Your task to perform on an android device: Go to internet settings Image 0: 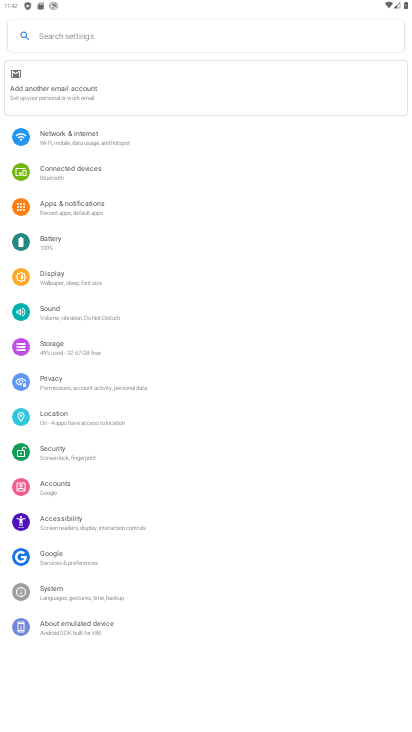
Step 0: press home button
Your task to perform on an android device: Go to internet settings Image 1: 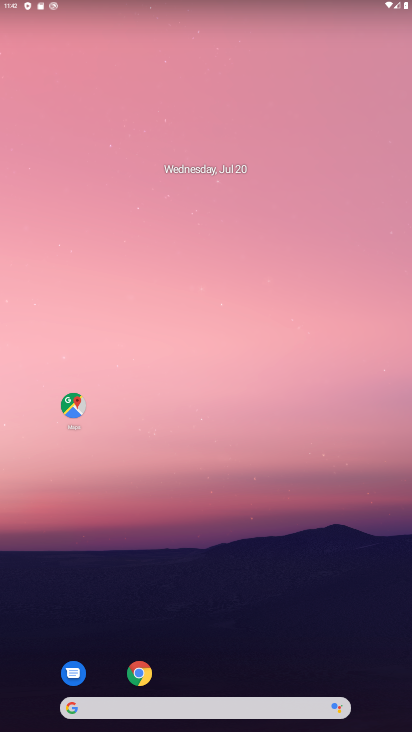
Step 1: drag from (150, 690) to (154, 277)
Your task to perform on an android device: Go to internet settings Image 2: 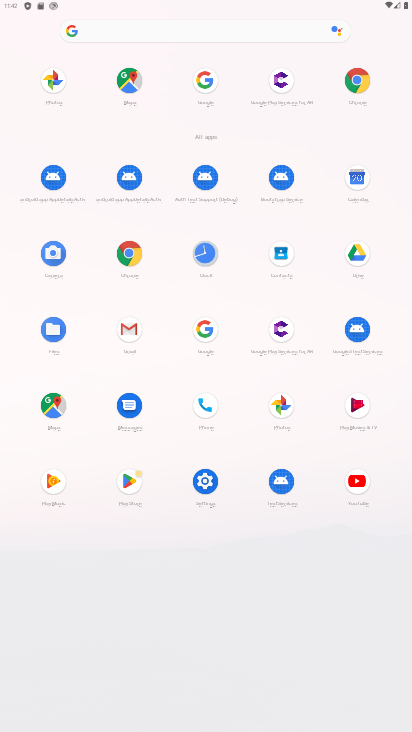
Step 2: click (194, 485)
Your task to perform on an android device: Go to internet settings Image 3: 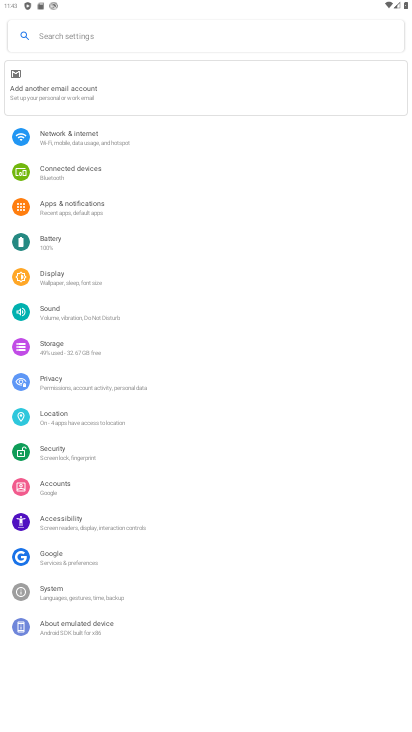
Step 3: click (64, 144)
Your task to perform on an android device: Go to internet settings Image 4: 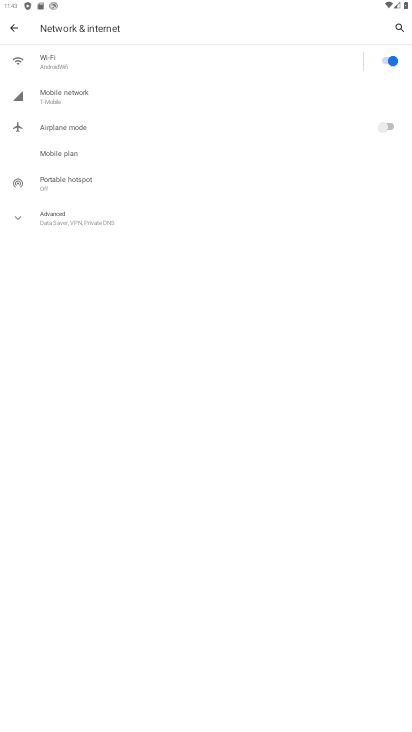
Step 4: click (84, 213)
Your task to perform on an android device: Go to internet settings Image 5: 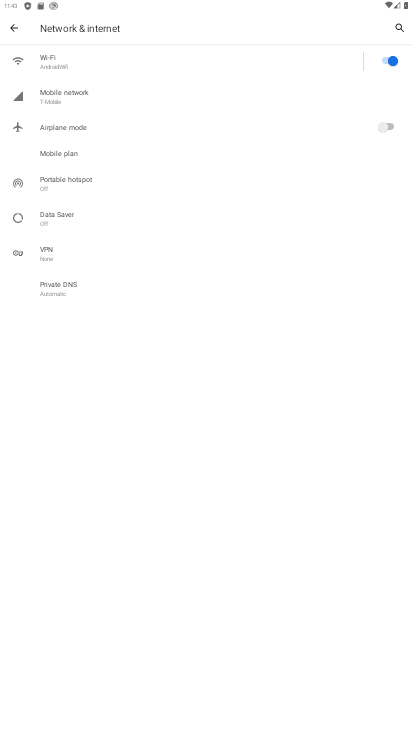
Step 5: task complete